Your task to perform on an android device: Search for vegetarian restaurants on Maps Image 0: 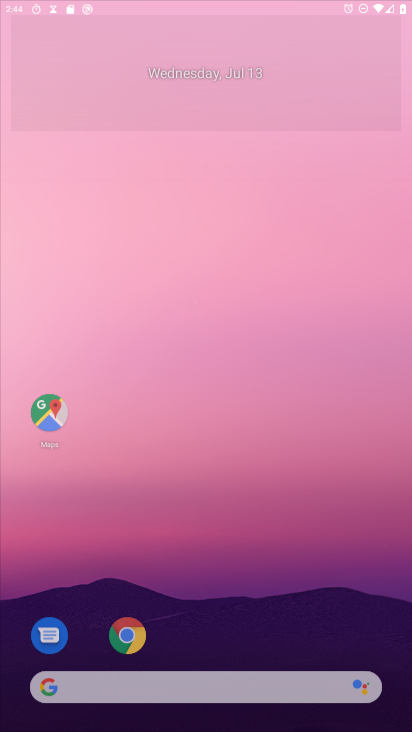
Step 0: press home button
Your task to perform on an android device: Search for vegetarian restaurants on Maps Image 1: 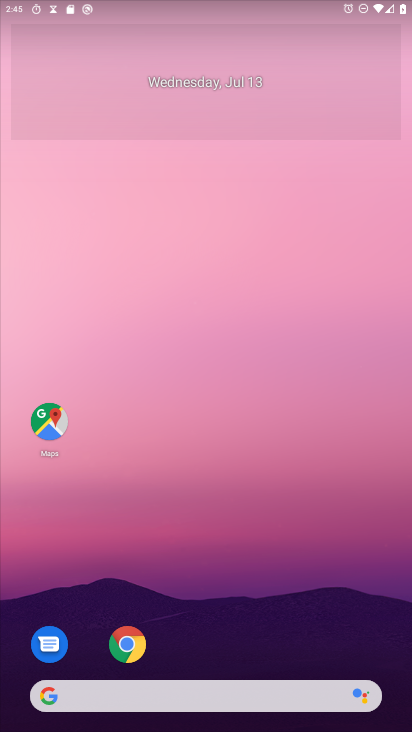
Step 1: press home button
Your task to perform on an android device: Search for vegetarian restaurants on Maps Image 2: 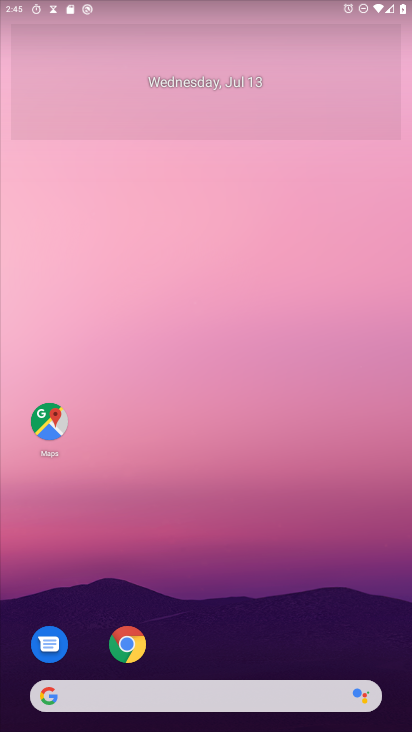
Step 2: click (40, 408)
Your task to perform on an android device: Search for vegetarian restaurants on Maps Image 3: 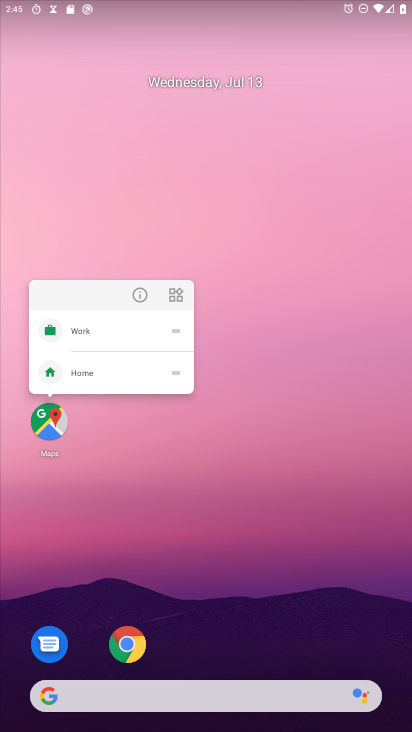
Step 3: click (49, 417)
Your task to perform on an android device: Search for vegetarian restaurants on Maps Image 4: 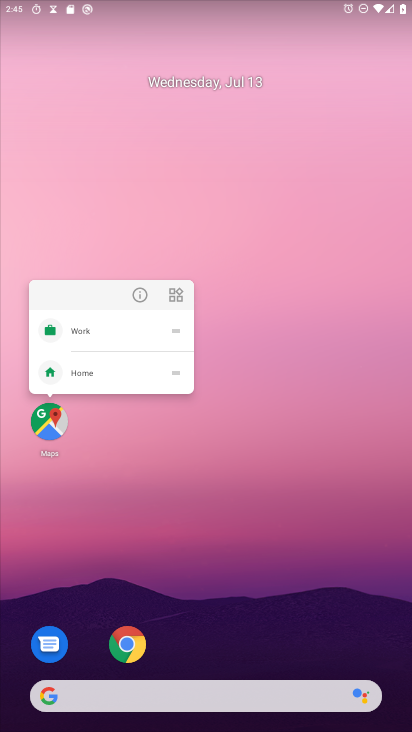
Step 4: click (50, 426)
Your task to perform on an android device: Search for vegetarian restaurants on Maps Image 5: 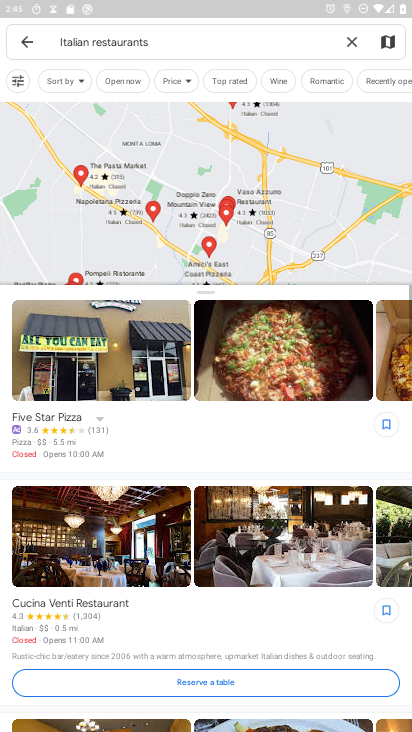
Step 5: click (345, 40)
Your task to perform on an android device: Search for vegetarian restaurants on Maps Image 6: 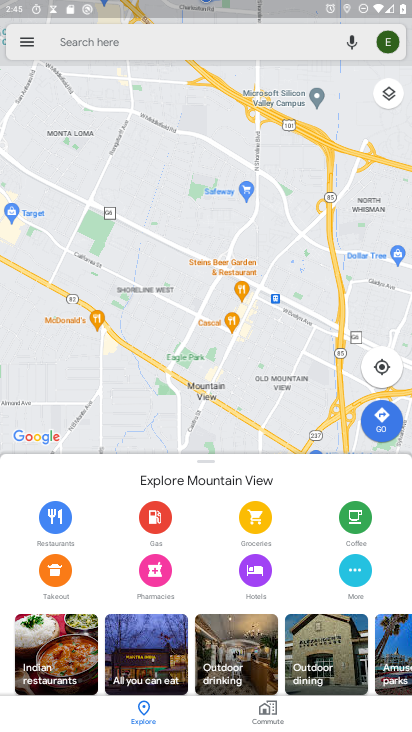
Step 6: type " vegetarian restaurants"
Your task to perform on an android device: Search for vegetarian restaurants on Maps Image 7: 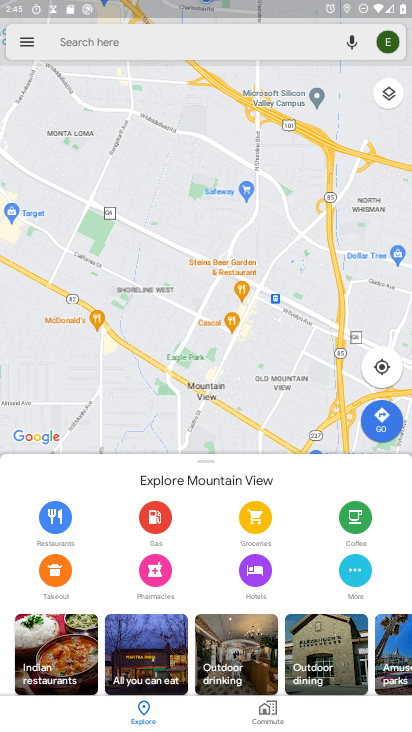
Step 7: click (114, 35)
Your task to perform on an android device: Search for vegetarian restaurants on Maps Image 8: 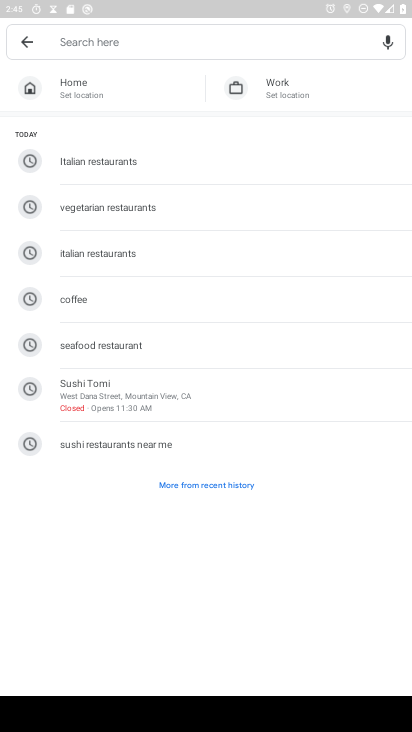
Step 8: click (84, 45)
Your task to perform on an android device: Search for vegetarian restaurants on Maps Image 9: 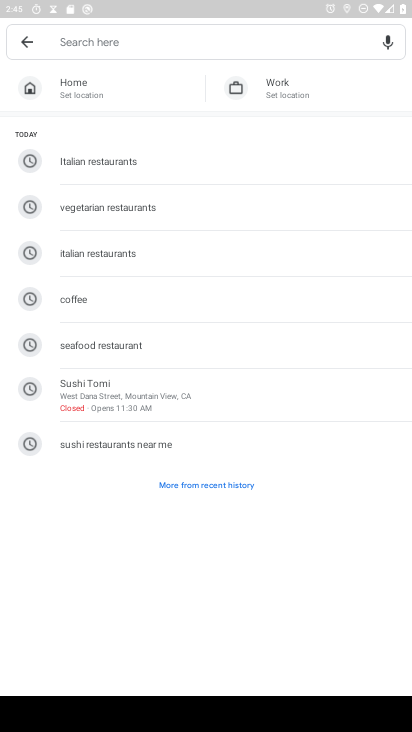
Step 9: type " vegetarian restaurants"
Your task to perform on an android device: Search for vegetarian restaurants on Maps Image 10: 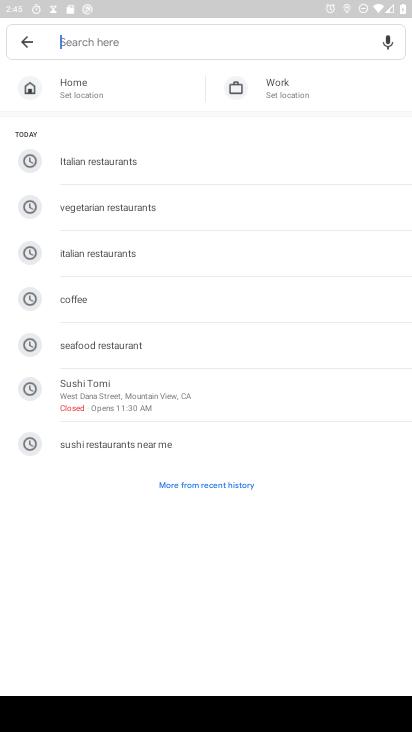
Step 10: click (99, 44)
Your task to perform on an android device: Search for vegetarian restaurants on Maps Image 11: 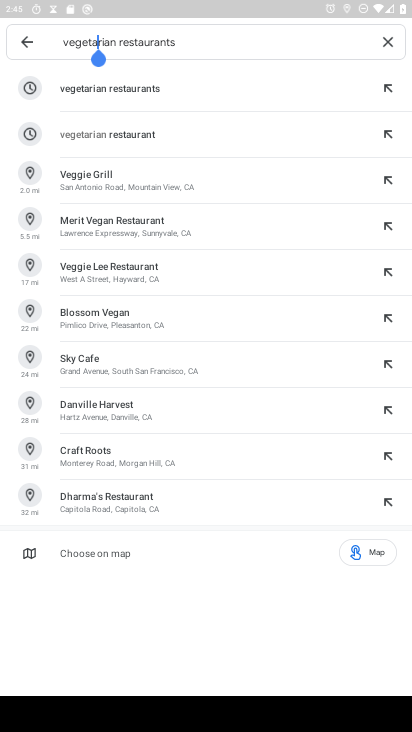
Step 11: press enter
Your task to perform on an android device: Search for vegetarian restaurants on Maps Image 12: 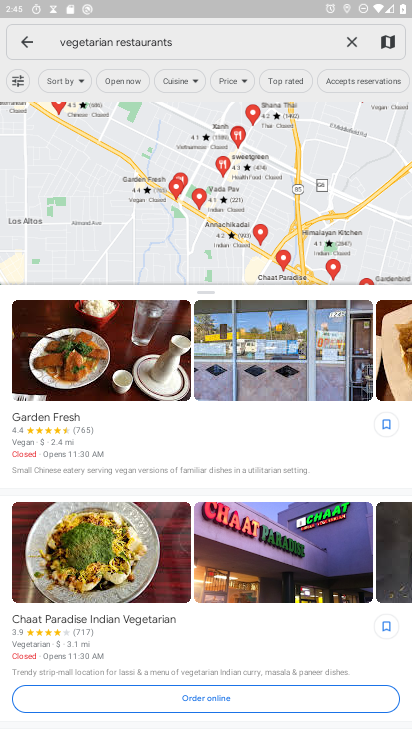
Step 12: task complete